Your task to perform on an android device: remove spam from my inbox in the gmail app Image 0: 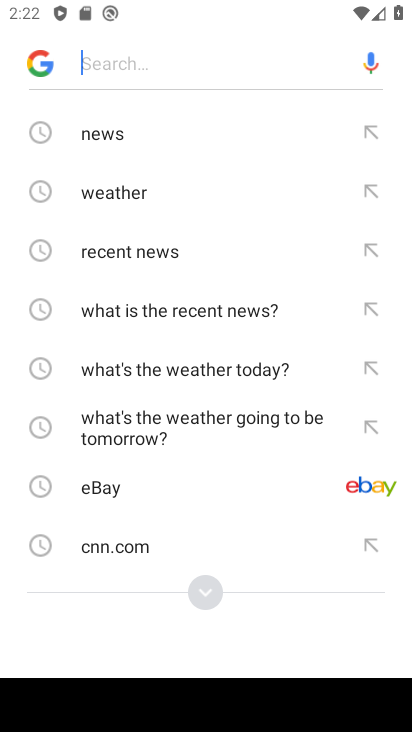
Step 0: press back button
Your task to perform on an android device: remove spam from my inbox in the gmail app Image 1: 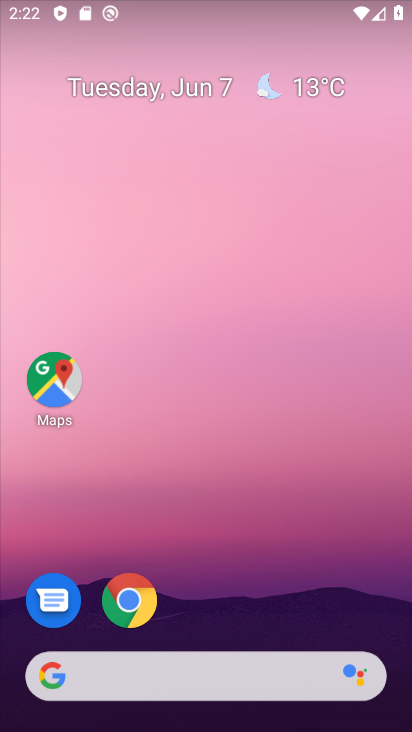
Step 1: drag from (381, 470) to (317, 23)
Your task to perform on an android device: remove spam from my inbox in the gmail app Image 2: 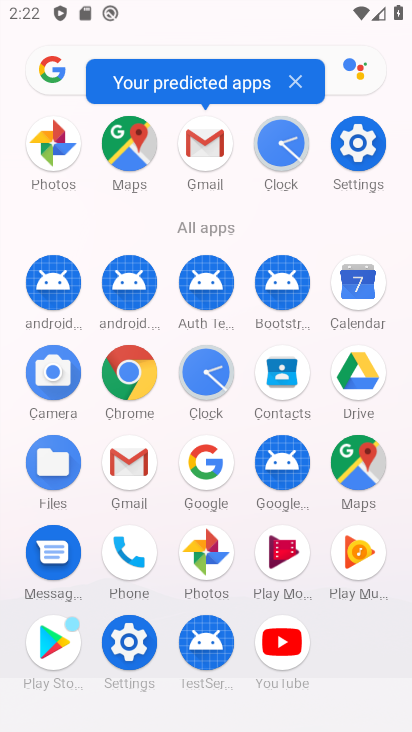
Step 2: click (196, 143)
Your task to perform on an android device: remove spam from my inbox in the gmail app Image 3: 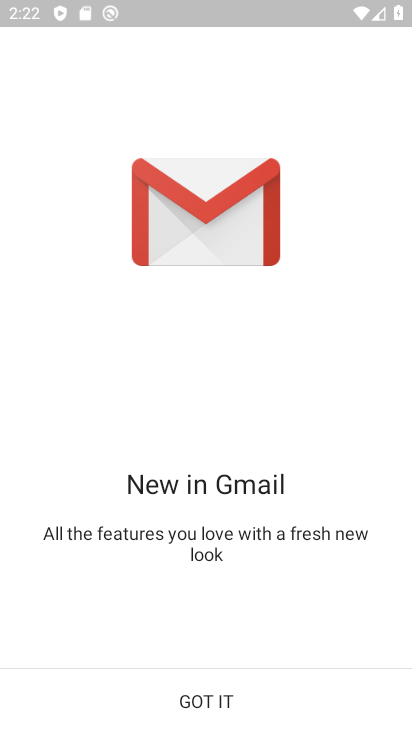
Step 3: click (187, 703)
Your task to perform on an android device: remove spam from my inbox in the gmail app Image 4: 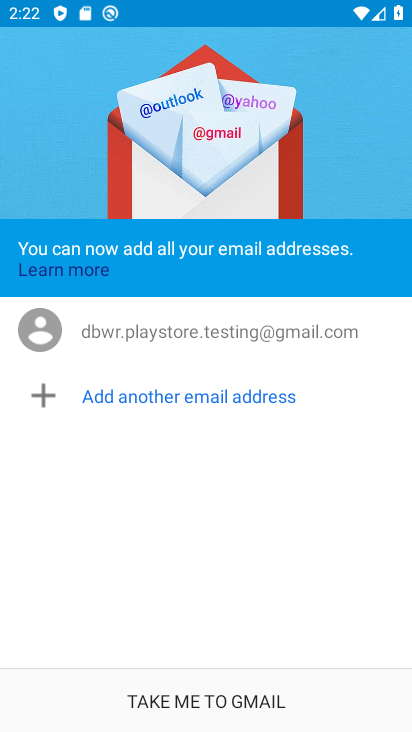
Step 4: click (215, 692)
Your task to perform on an android device: remove spam from my inbox in the gmail app Image 5: 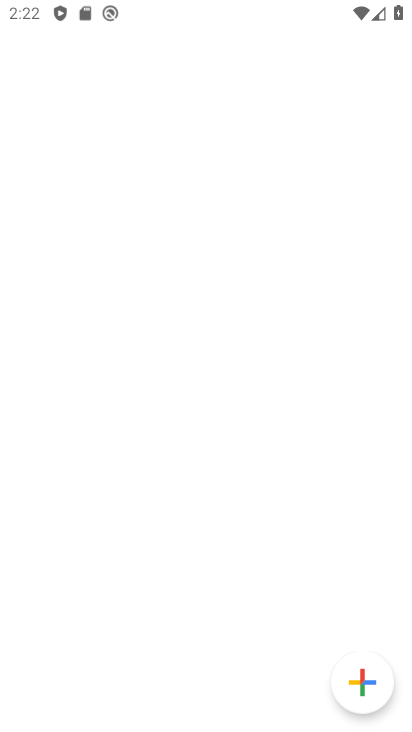
Step 5: click (215, 692)
Your task to perform on an android device: remove spam from my inbox in the gmail app Image 6: 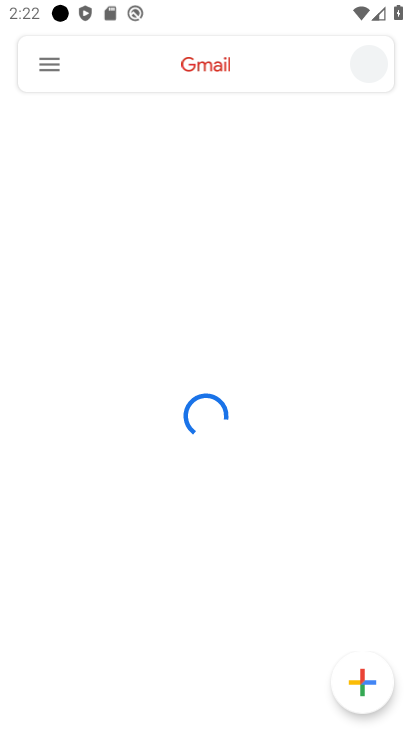
Step 6: click (50, 65)
Your task to perform on an android device: remove spam from my inbox in the gmail app Image 7: 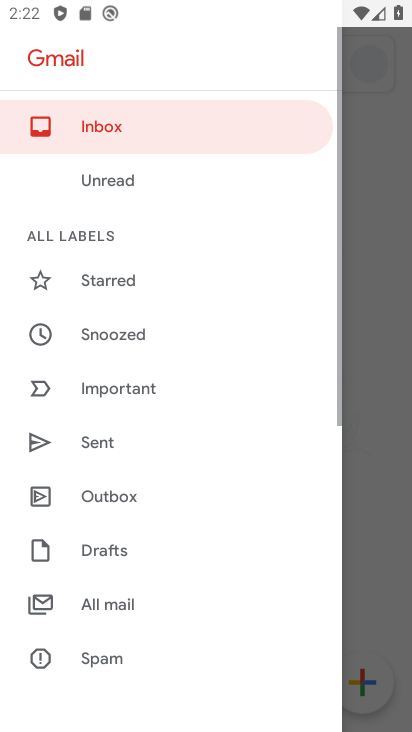
Step 7: drag from (238, 148) to (255, 597)
Your task to perform on an android device: remove spam from my inbox in the gmail app Image 8: 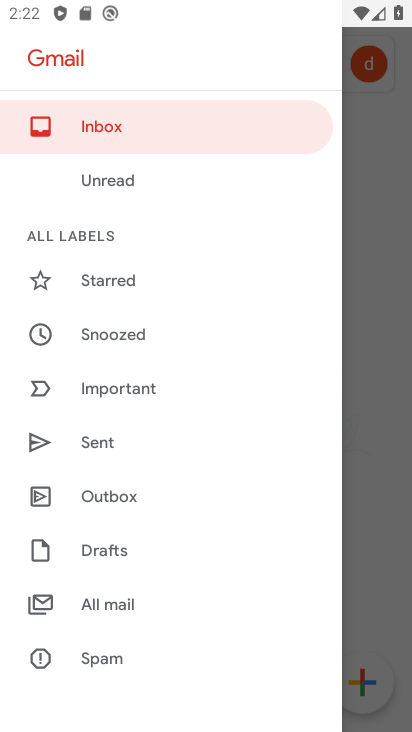
Step 8: click (93, 660)
Your task to perform on an android device: remove spam from my inbox in the gmail app Image 9: 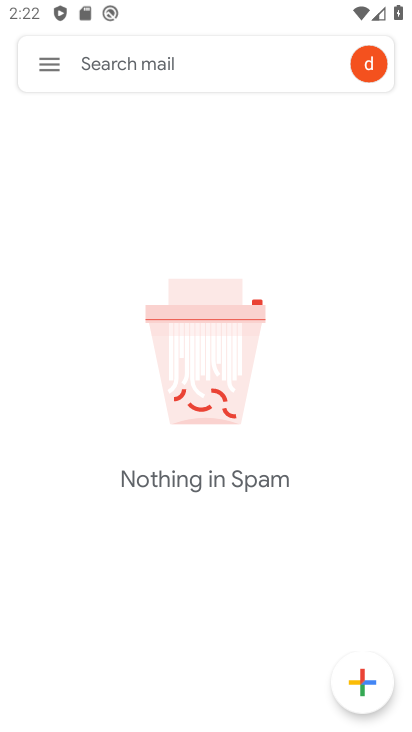
Step 9: task complete